Your task to perform on an android device: set the timer Image 0: 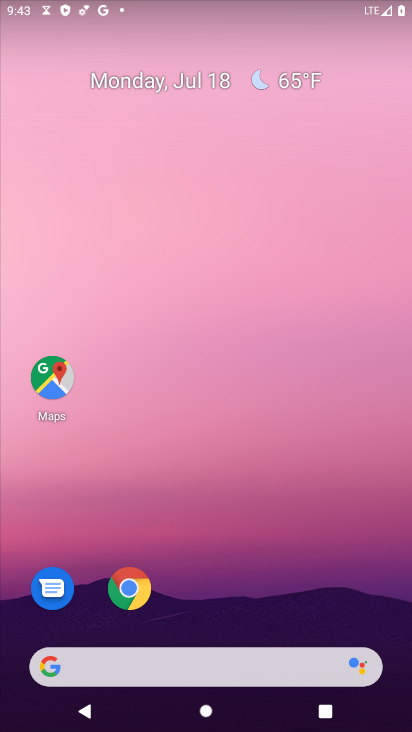
Step 0: drag from (179, 659) to (223, 43)
Your task to perform on an android device: set the timer Image 1: 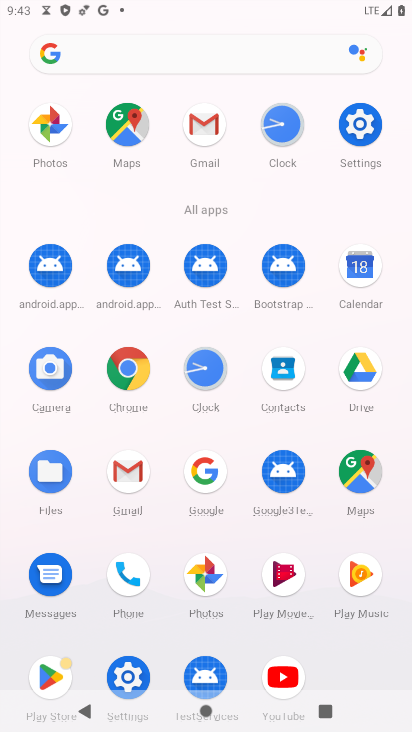
Step 1: click (284, 124)
Your task to perform on an android device: set the timer Image 2: 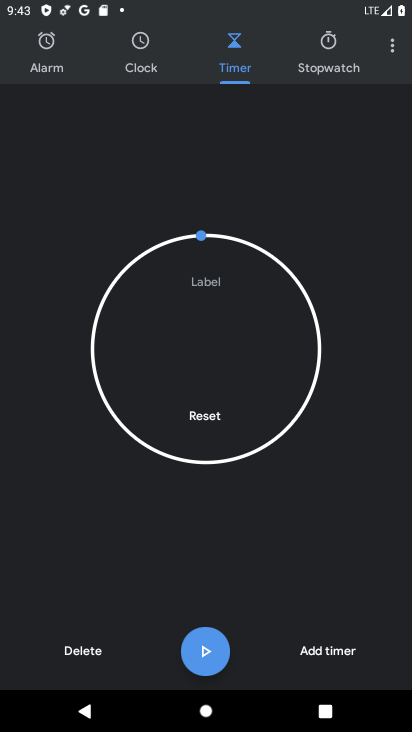
Step 2: click (210, 648)
Your task to perform on an android device: set the timer Image 3: 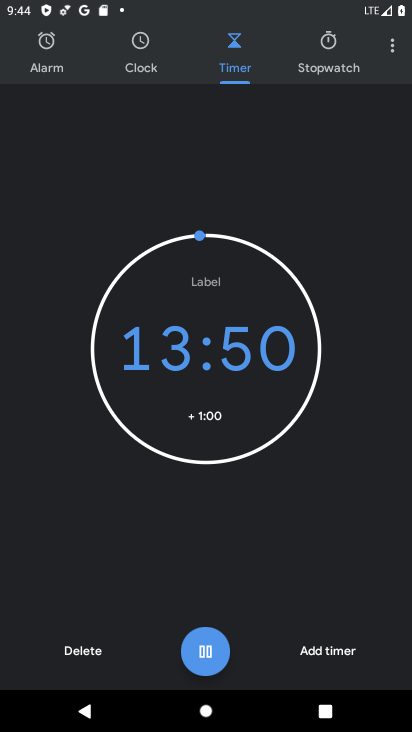
Step 3: click (210, 648)
Your task to perform on an android device: set the timer Image 4: 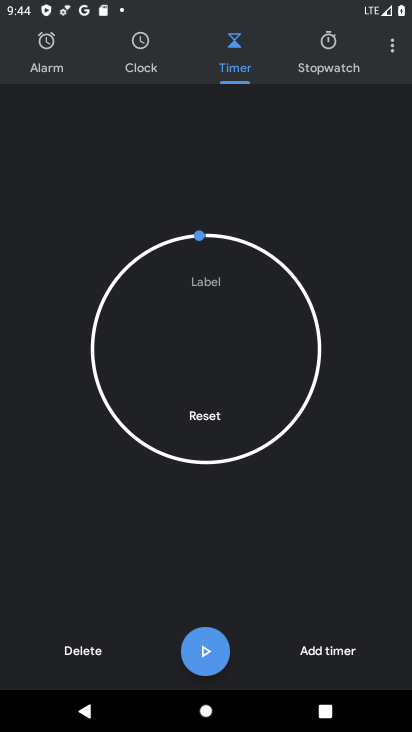
Step 4: task complete